Your task to perform on an android device: Do I have any events today? Image 0: 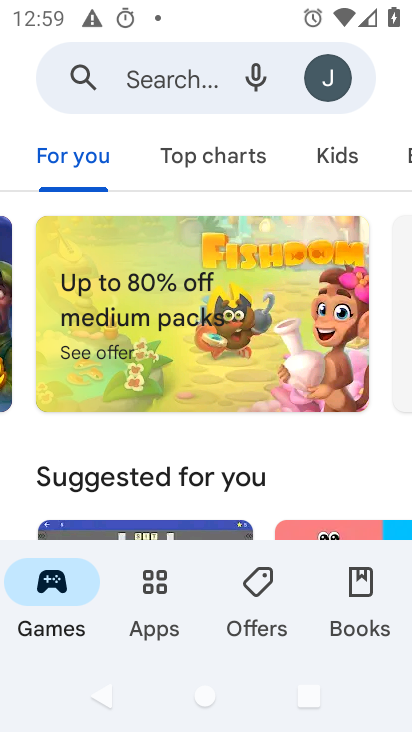
Step 0: press back button
Your task to perform on an android device: Do I have any events today? Image 1: 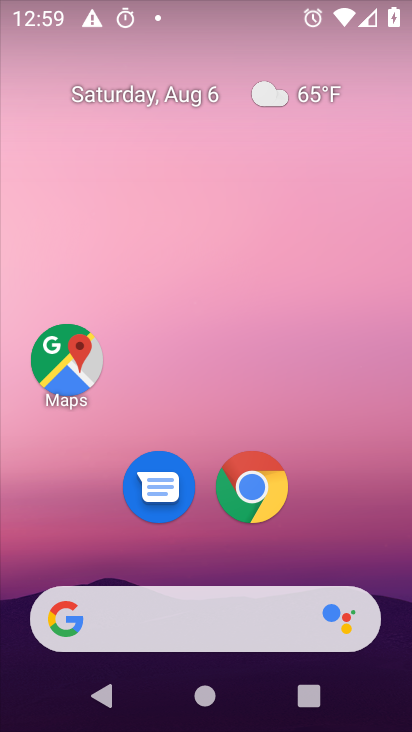
Step 1: drag from (194, 565) to (246, 109)
Your task to perform on an android device: Do I have any events today? Image 2: 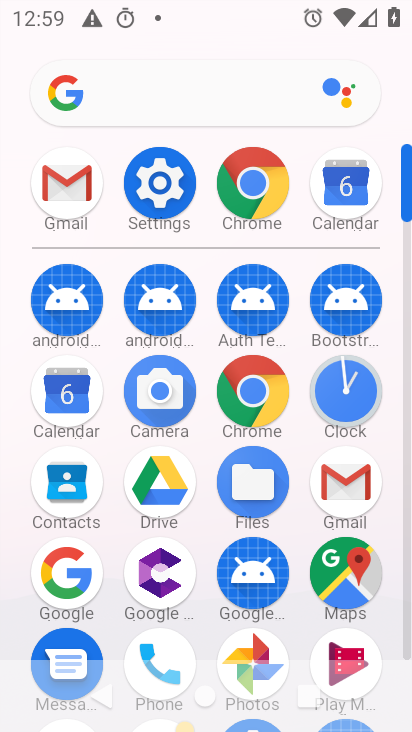
Step 2: click (63, 399)
Your task to perform on an android device: Do I have any events today? Image 3: 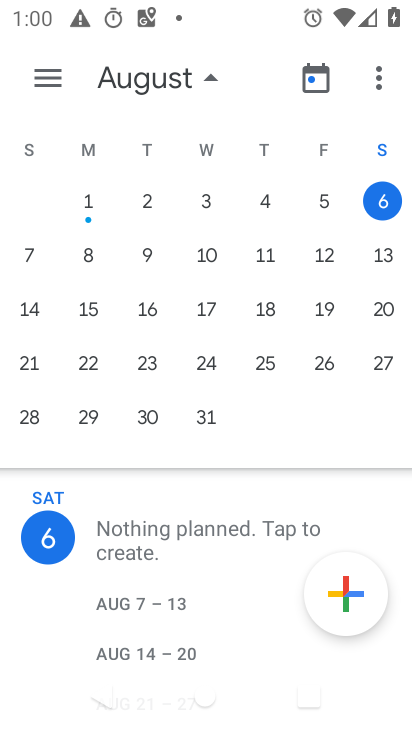
Step 3: task complete